Your task to perform on an android device: Go to internet settings Image 0: 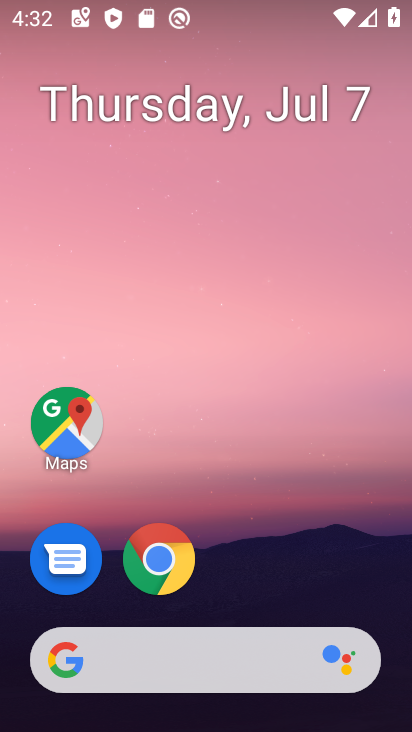
Step 0: drag from (221, 572) to (228, 67)
Your task to perform on an android device: Go to internet settings Image 1: 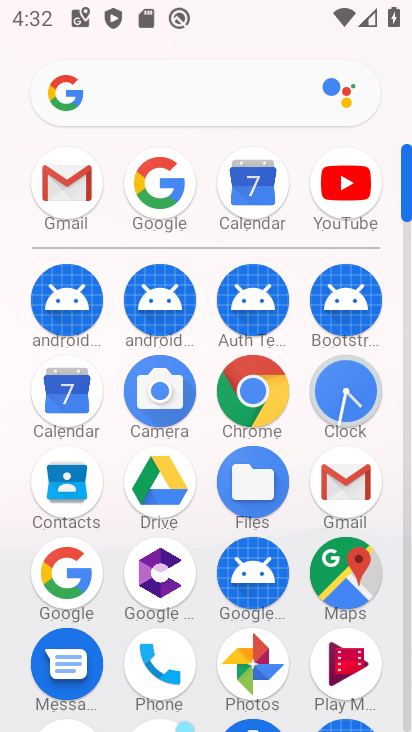
Step 1: drag from (227, 625) to (268, 103)
Your task to perform on an android device: Go to internet settings Image 2: 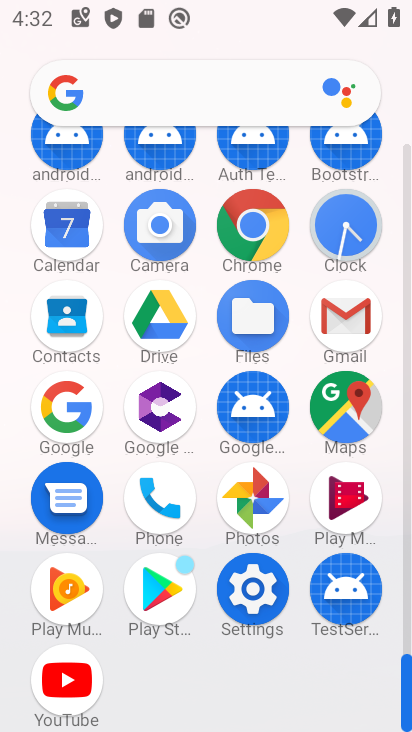
Step 2: click (241, 569)
Your task to perform on an android device: Go to internet settings Image 3: 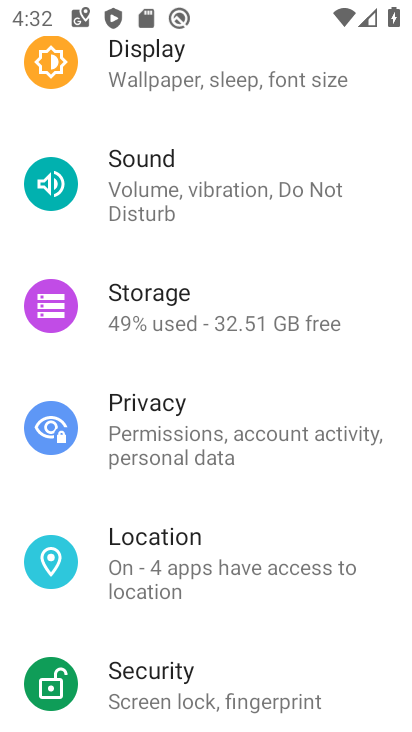
Step 3: drag from (216, 167) to (208, 713)
Your task to perform on an android device: Go to internet settings Image 4: 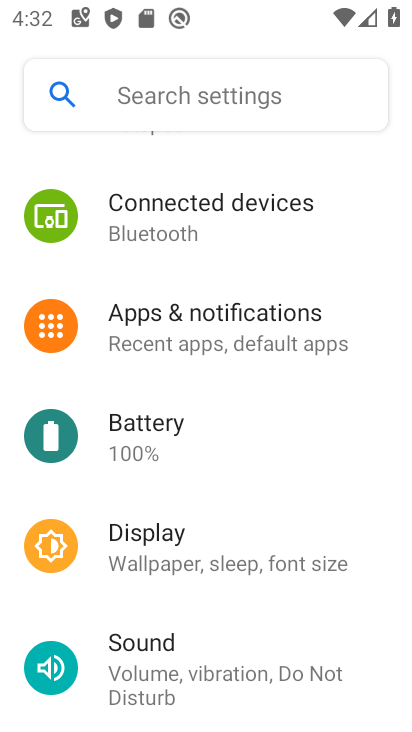
Step 4: drag from (217, 301) to (226, 716)
Your task to perform on an android device: Go to internet settings Image 5: 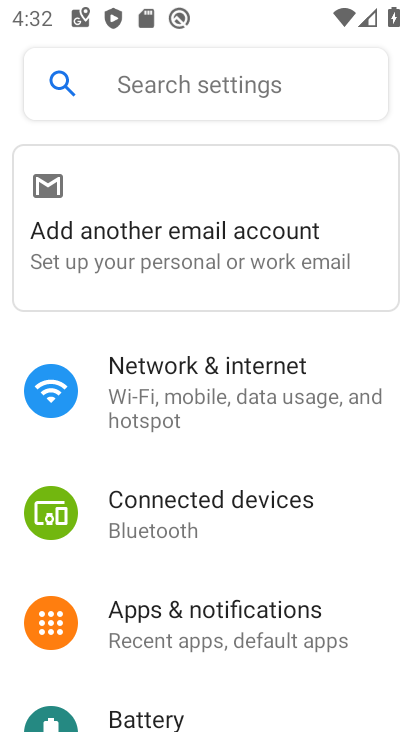
Step 5: click (223, 407)
Your task to perform on an android device: Go to internet settings Image 6: 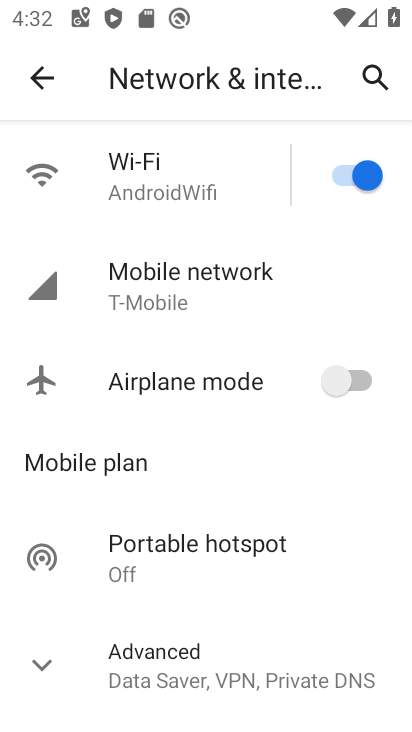
Step 6: task complete